Your task to perform on an android device: find photos in the google photos app Image 0: 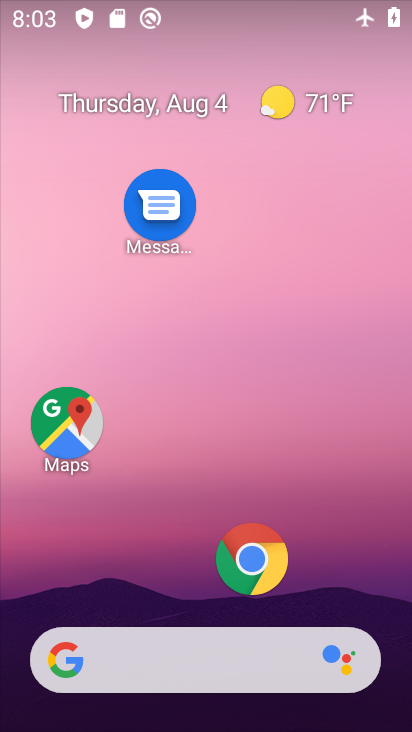
Step 0: drag from (201, 615) to (134, 75)
Your task to perform on an android device: find photos in the google photos app Image 1: 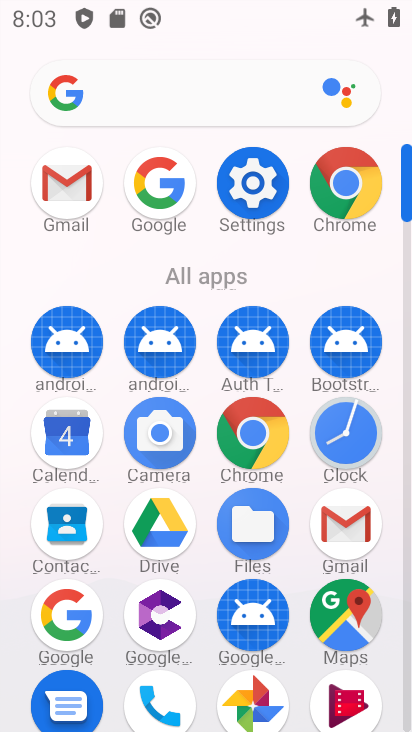
Step 1: click (237, 702)
Your task to perform on an android device: find photos in the google photos app Image 2: 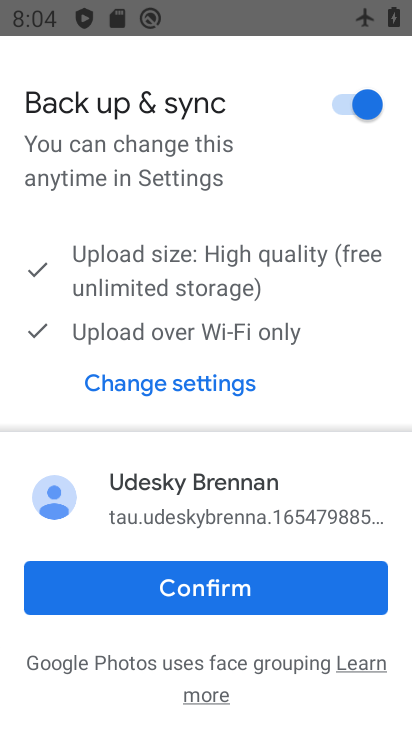
Step 2: click (276, 608)
Your task to perform on an android device: find photos in the google photos app Image 3: 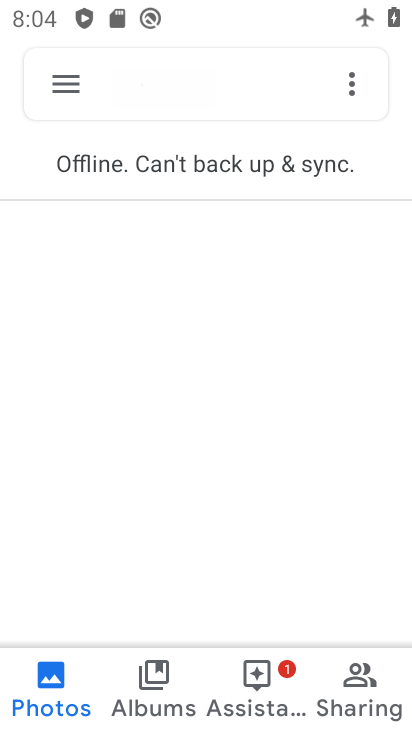
Step 3: click (65, 662)
Your task to perform on an android device: find photos in the google photos app Image 4: 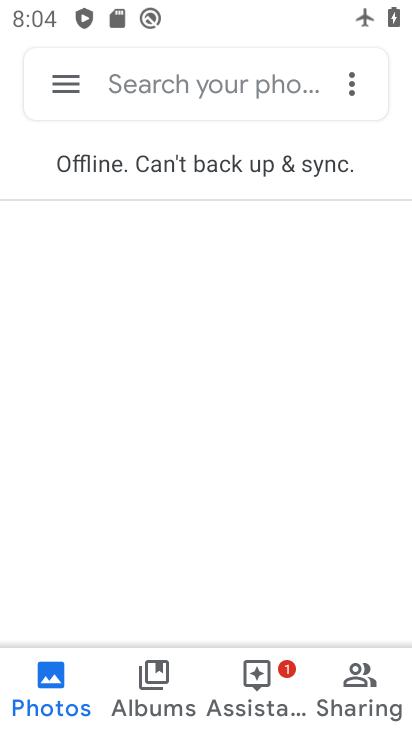
Step 4: task complete